Your task to perform on an android device: Show the shopping cart on ebay. Image 0: 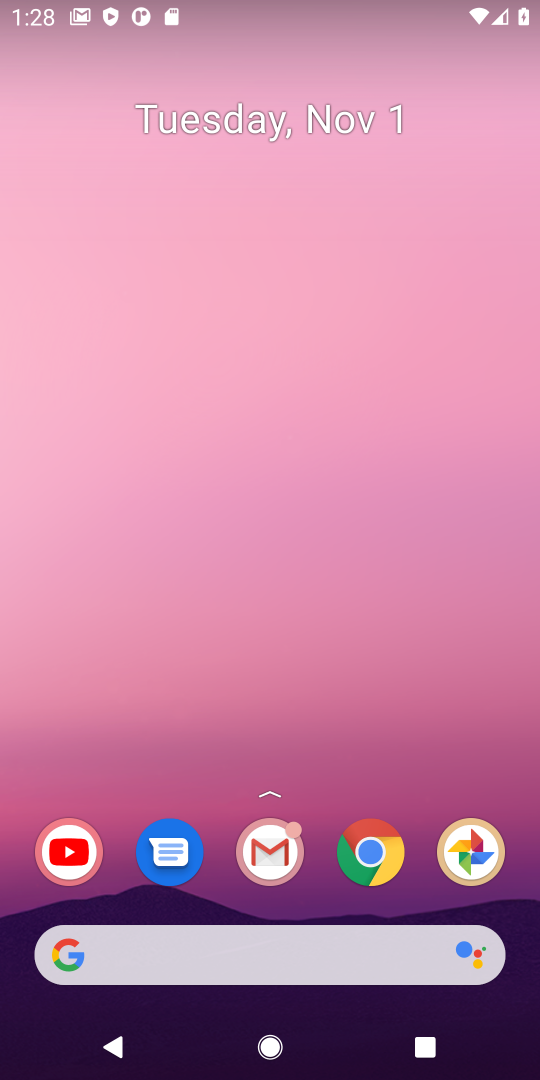
Step 0: click (339, 960)
Your task to perform on an android device: Show the shopping cart on ebay. Image 1: 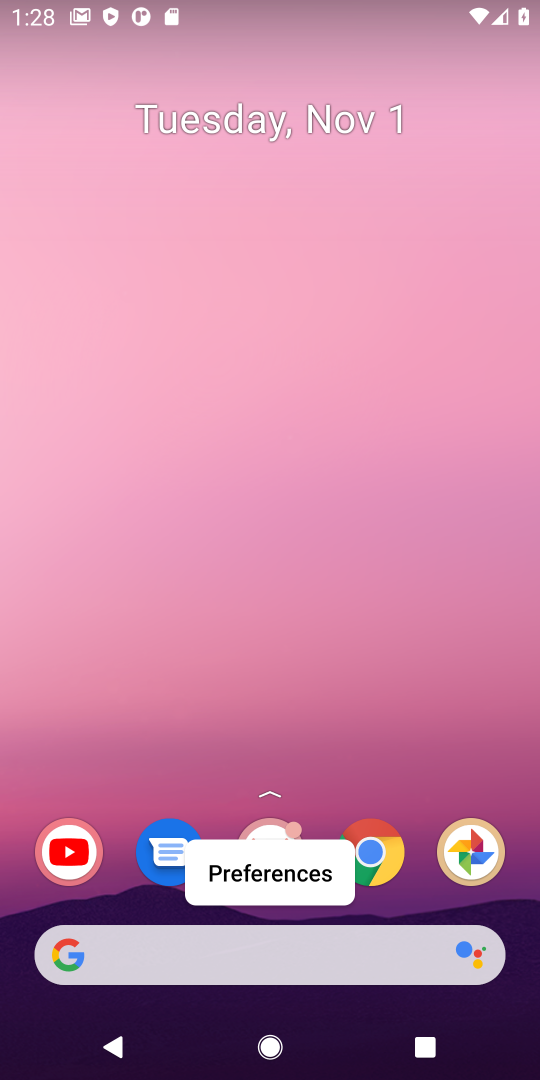
Step 1: click (339, 960)
Your task to perform on an android device: Show the shopping cart on ebay. Image 2: 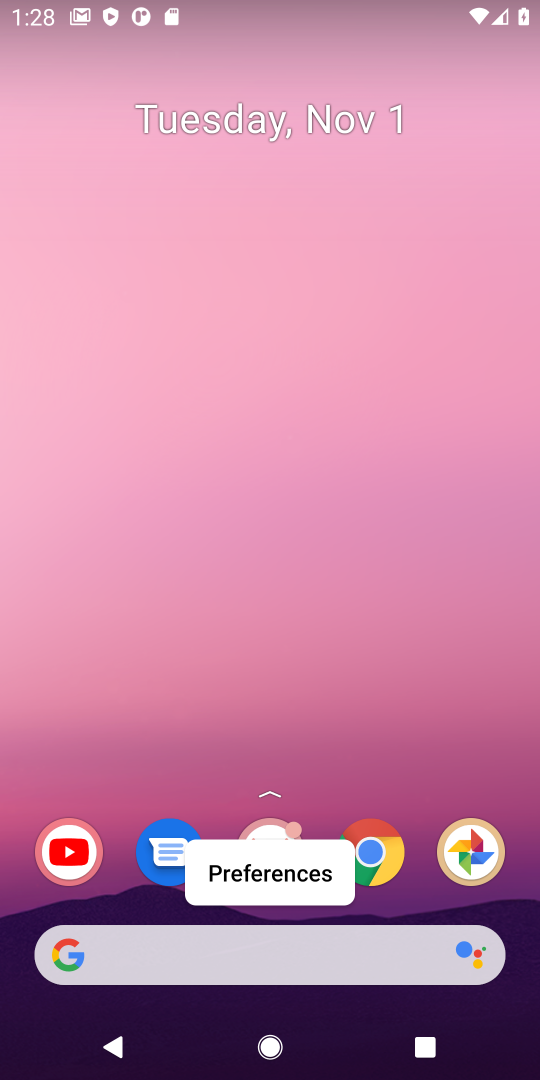
Step 2: click (339, 960)
Your task to perform on an android device: Show the shopping cart on ebay. Image 3: 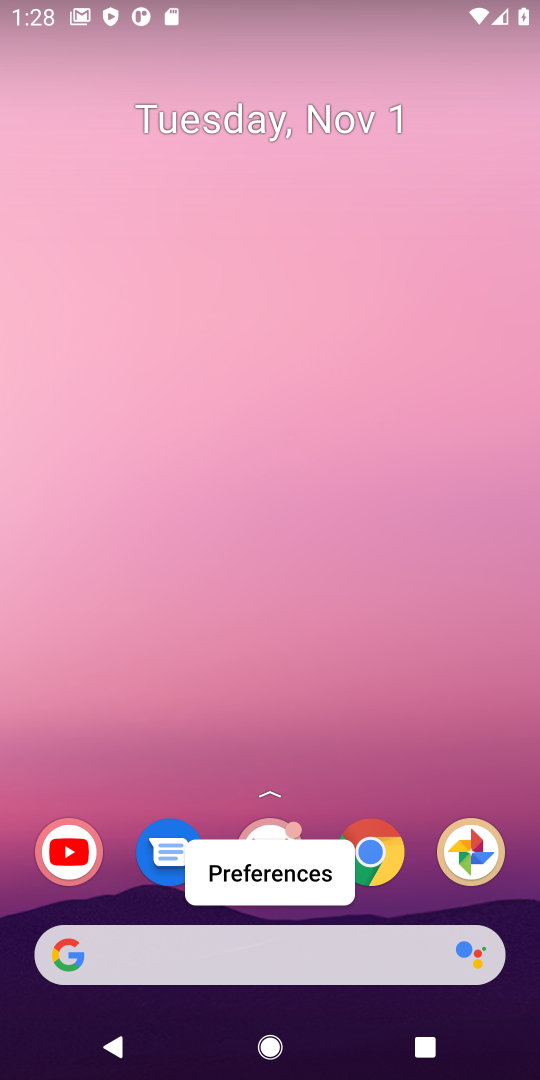
Step 3: click (341, 958)
Your task to perform on an android device: Show the shopping cart on ebay. Image 4: 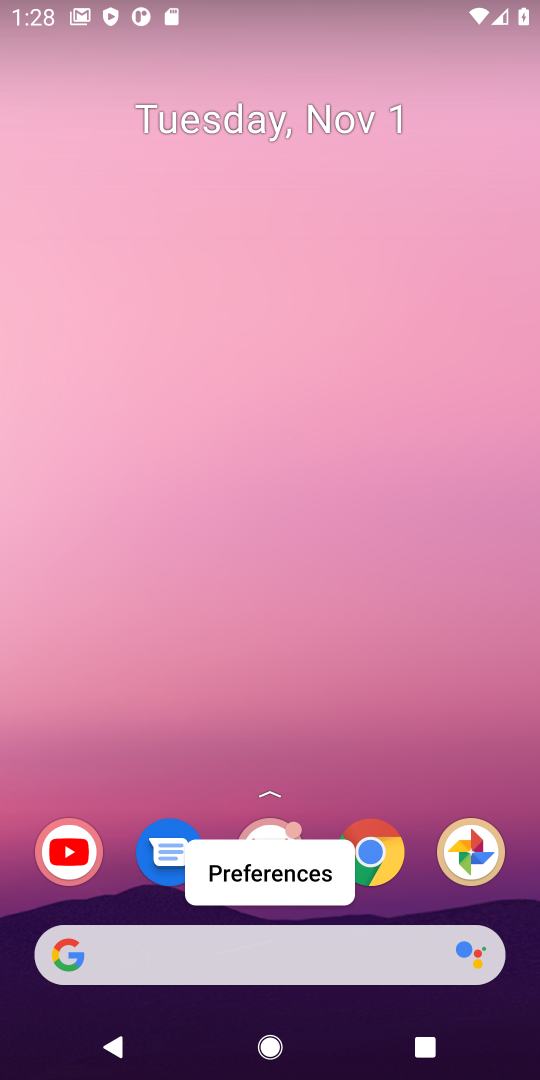
Step 4: click (319, 961)
Your task to perform on an android device: Show the shopping cart on ebay. Image 5: 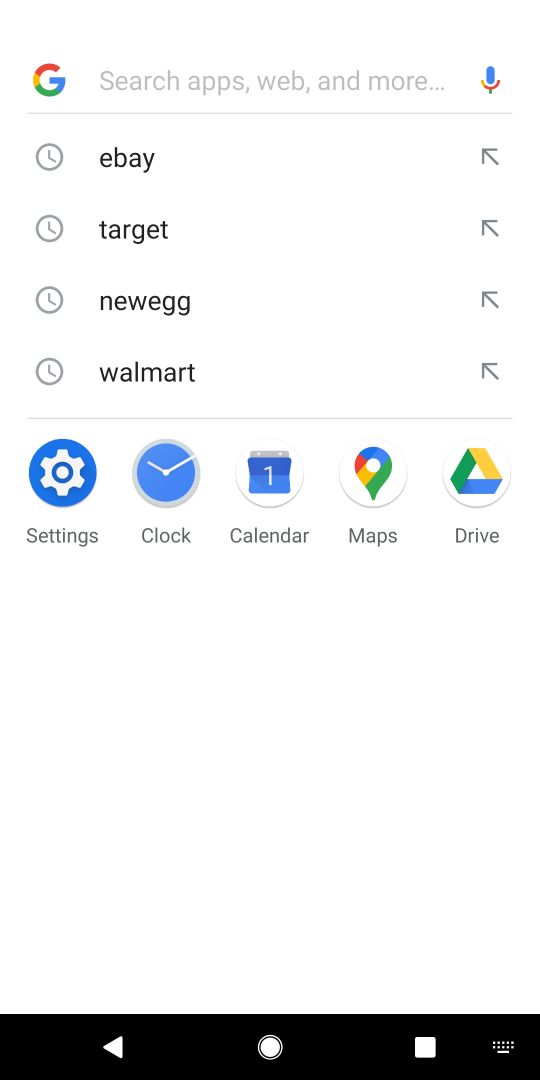
Step 5: type "ebay"
Your task to perform on an android device: Show the shopping cart on ebay. Image 6: 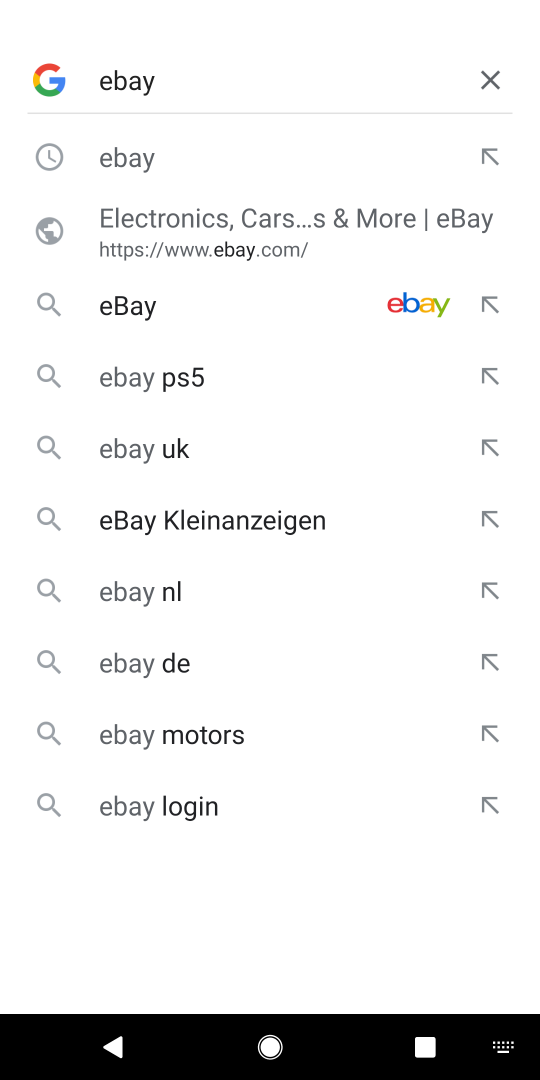
Step 6: type ""
Your task to perform on an android device: Show the shopping cart on ebay. Image 7: 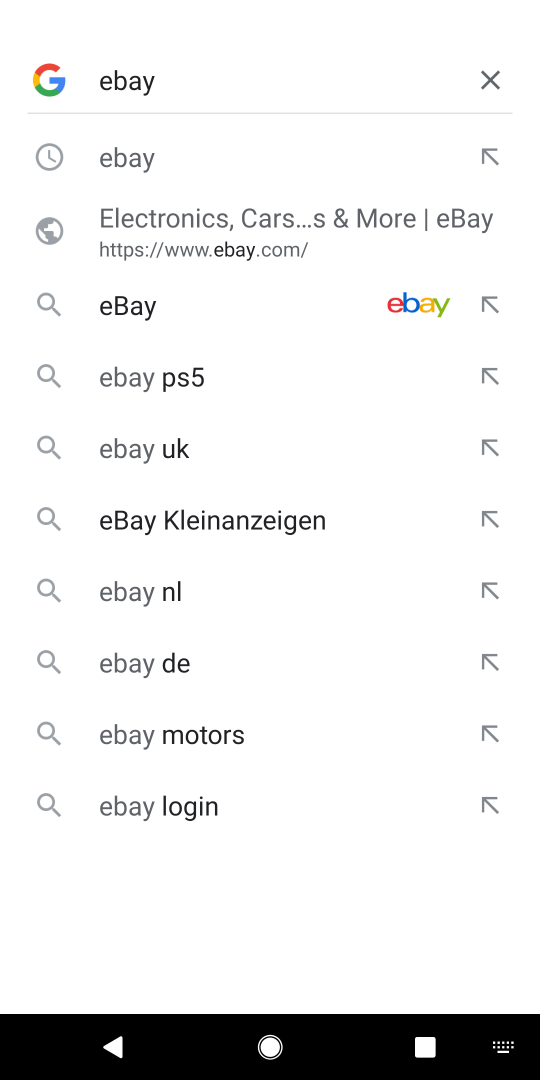
Step 7: type ""
Your task to perform on an android device: Show the shopping cart on ebay. Image 8: 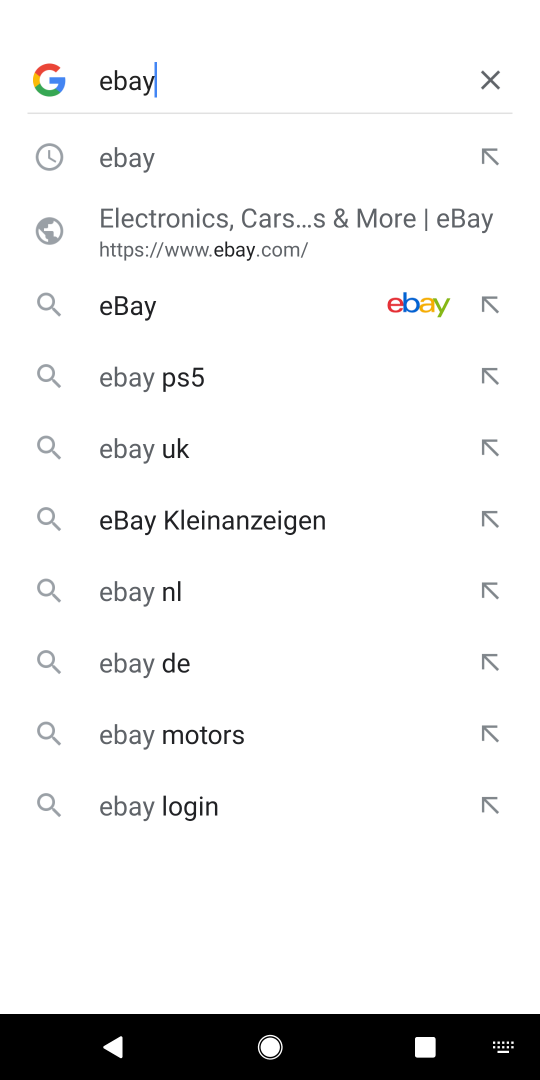
Step 8: type ""
Your task to perform on an android device: Show the shopping cart on ebay. Image 9: 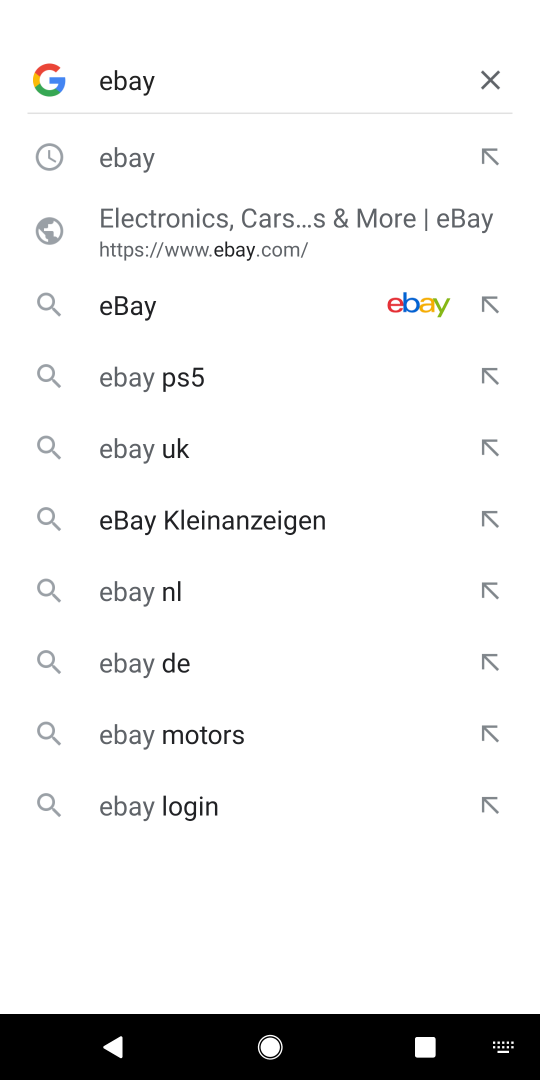
Step 9: type ""
Your task to perform on an android device: Show the shopping cart on ebay. Image 10: 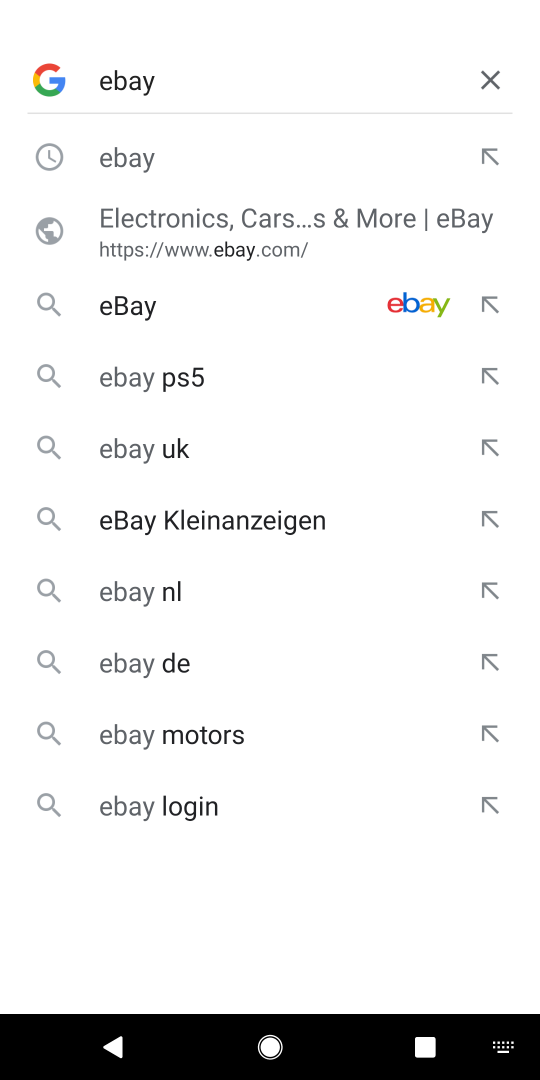
Step 10: type ""
Your task to perform on an android device: Show the shopping cart on ebay. Image 11: 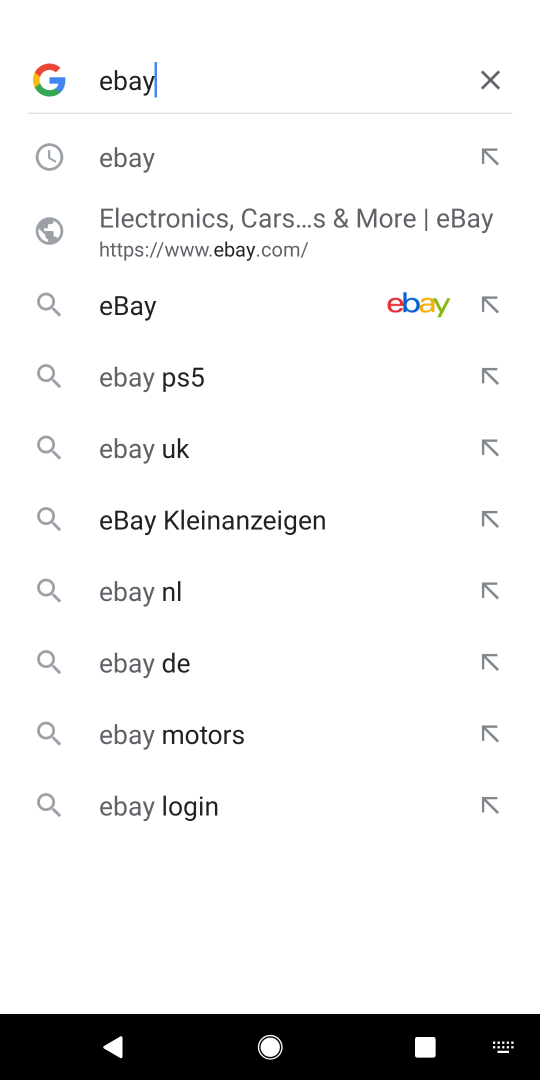
Step 11: type ""
Your task to perform on an android device: Show the shopping cart on ebay. Image 12: 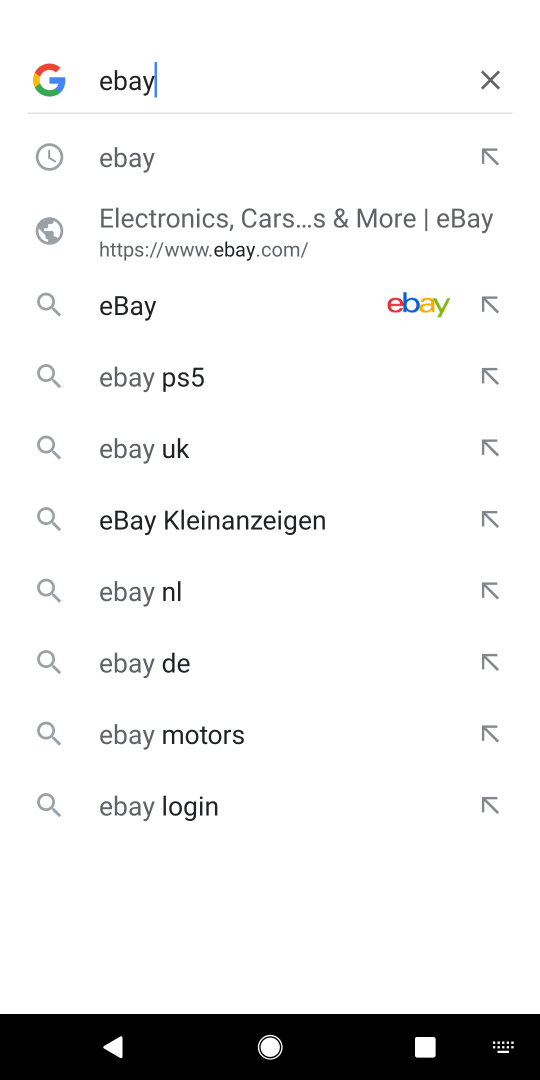
Step 12: press enter
Your task to perform on an android device: Show the shopping cart on ebay. Image 13: 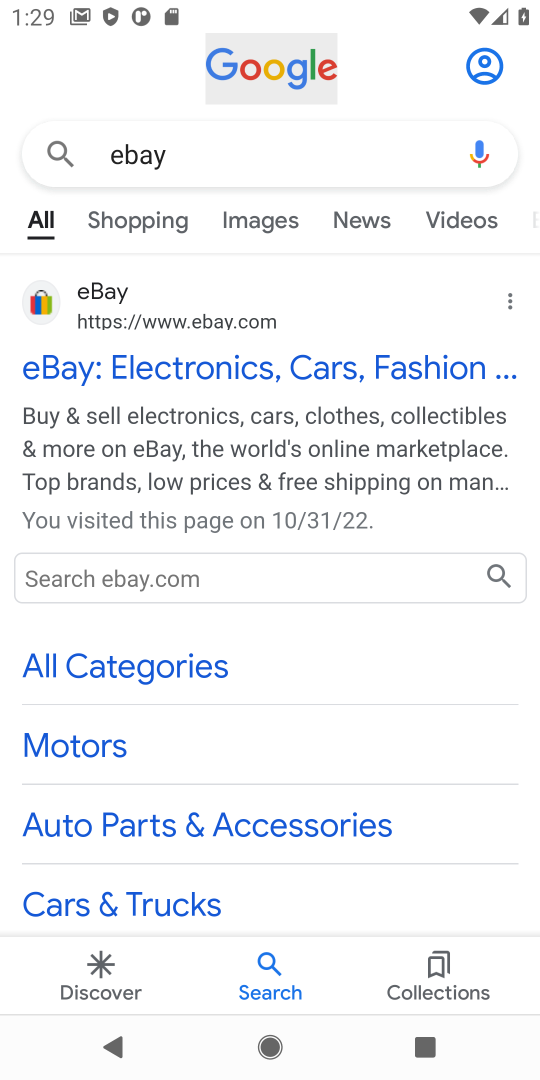
Step 13: press enter
Your task to perform on an android device: Show the shopping cart on ebay. Image 14: 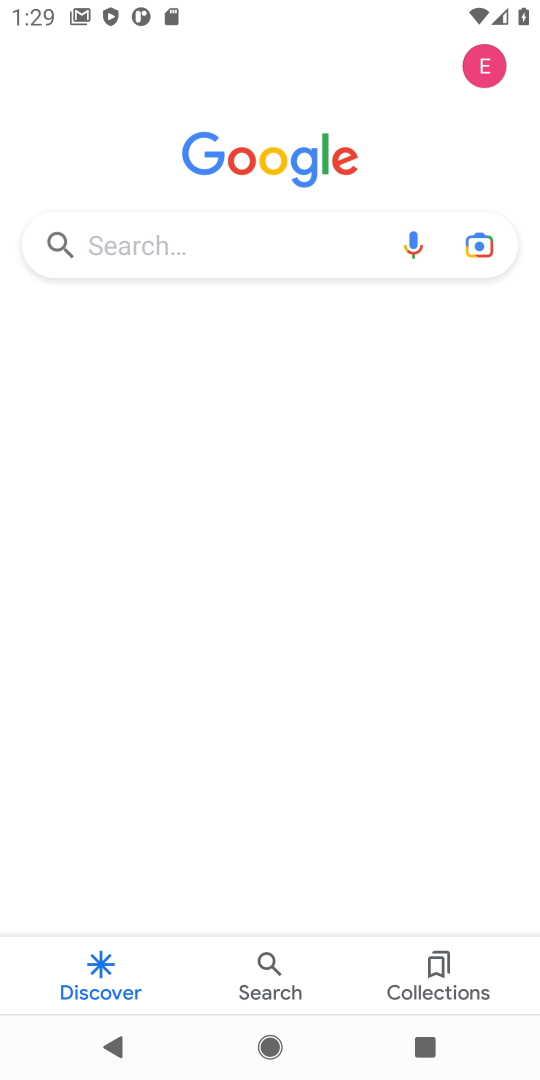
Step 14: task complete